Your task to perform on an android device: Open location settings Image 0: 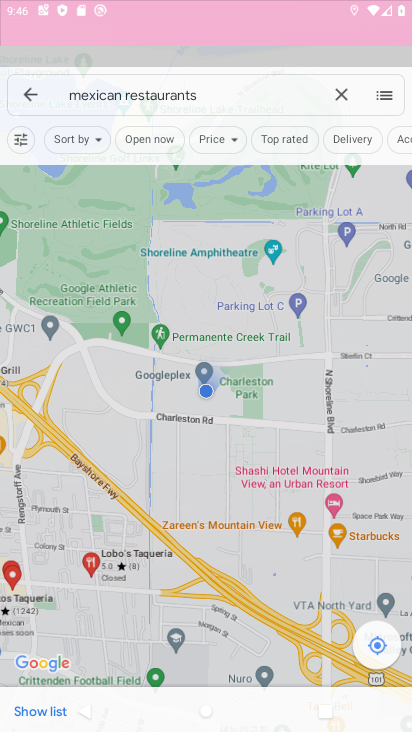
Step 0: click (253, 199)
Your task to perform on an android device: Open location settings Image 1: 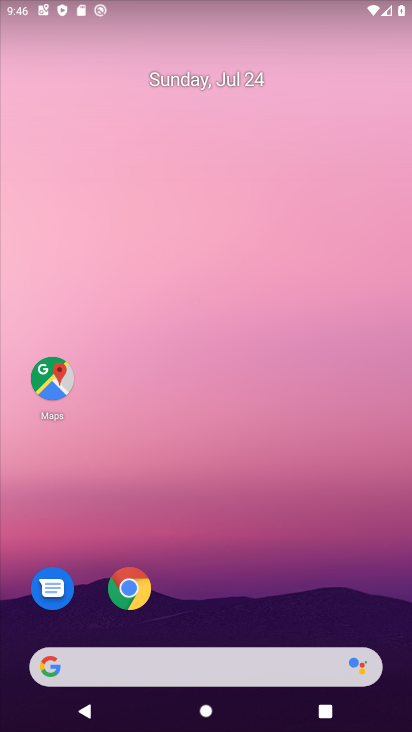
Step 1: drag from (250, 701) to (286, 87)
Your task to perform on an android device: Open location settings Image 2: 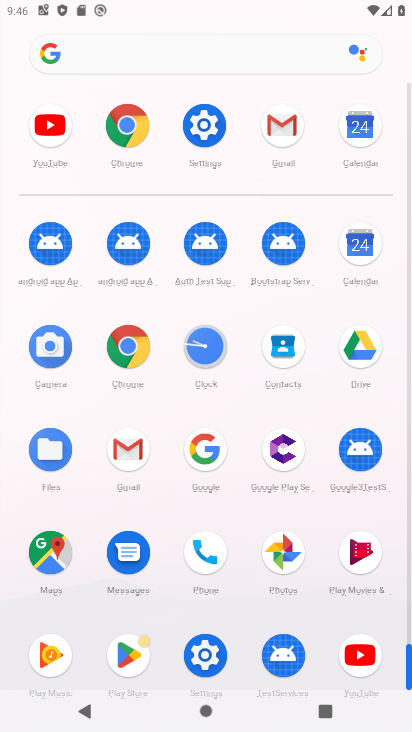
Step 2: click (192, 122)
Your task to perform on an android device: Open location settings Image 3: 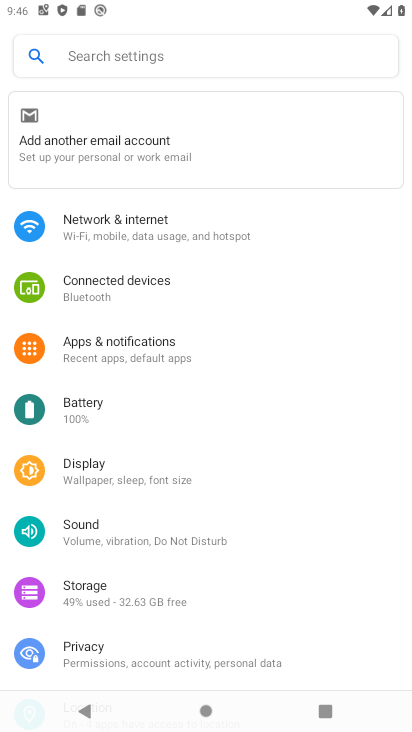
Step 3: drag from (154, 609) to (232, 27)
Your task to perform on an android device: Open location settings Image 4: 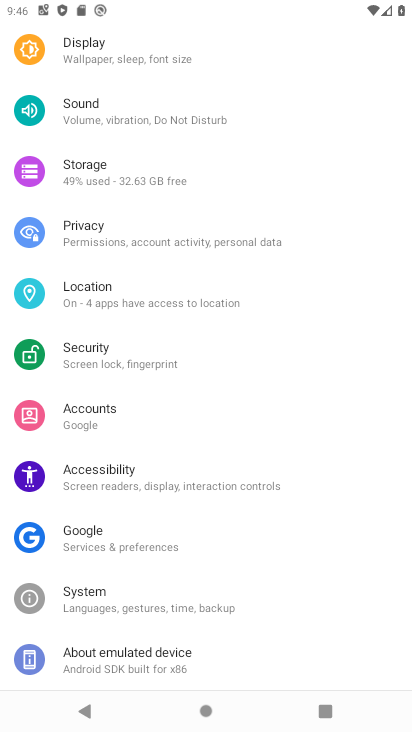
Step 4: click (102, 293)
Your task to perform on an android device: Open location settings Image 5: 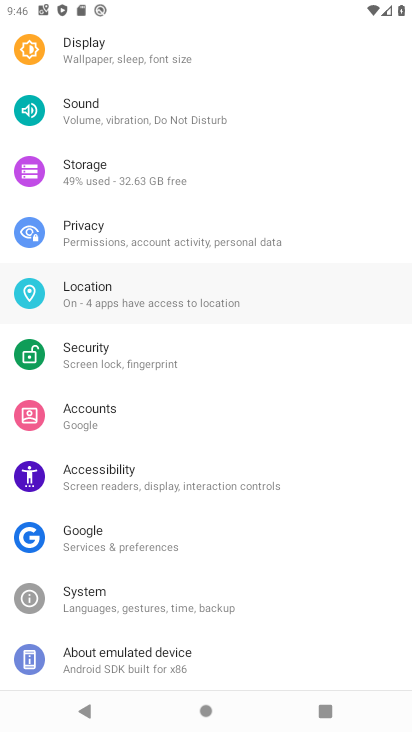
Step 5: click (104, 292)
Your task to perform on an android device: Open location settings Image 6: 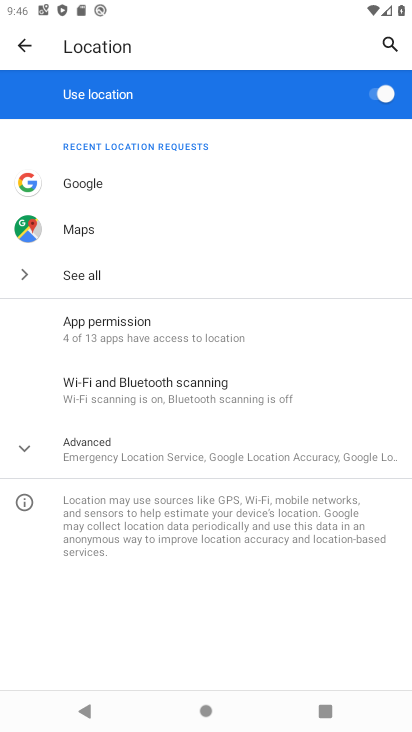
Step 6: task complete